Your task to perform on an android device: What's the weather today? Image 0: 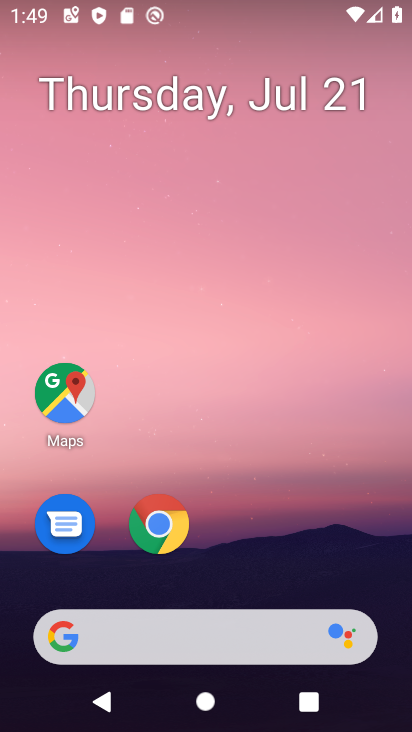
Step 0: drag from (270, 543) to (288, 64)
Your task to perform on an android device: What's the weather today? Image 1: 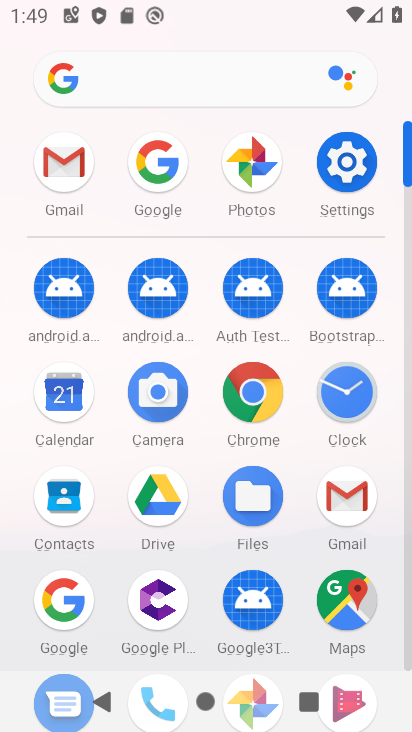
Step 1: click (154, 165)
Your task to perform on an android device: What's the weather today? Image 2: 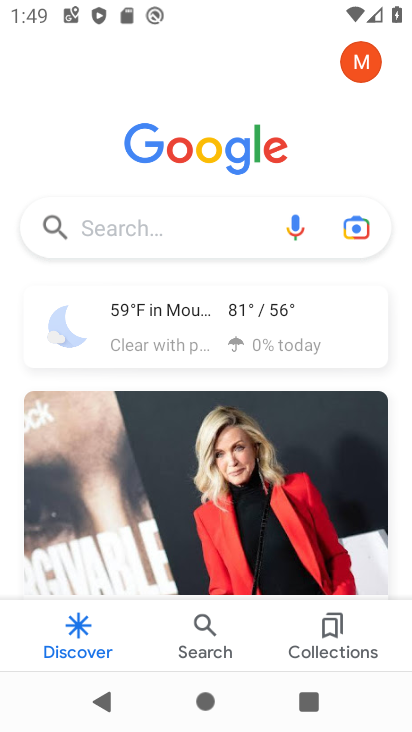
Step 2: click (159, 298)
Your task to perform on an android device: What's the weather today? Image 3: 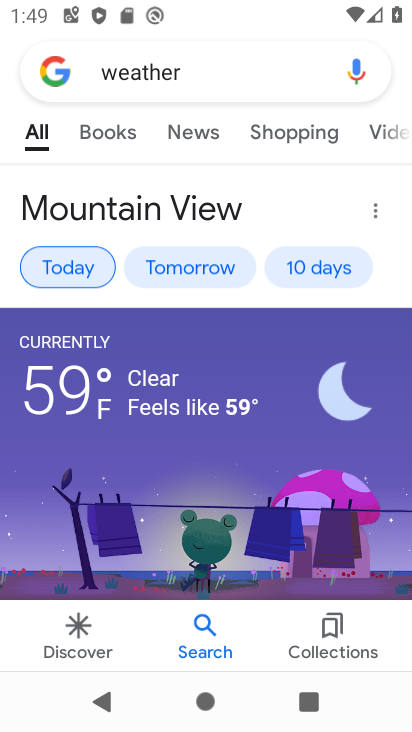
Step 3: click (84, 263)
Your task to perform on an android device: What's the weather today? Image 4: 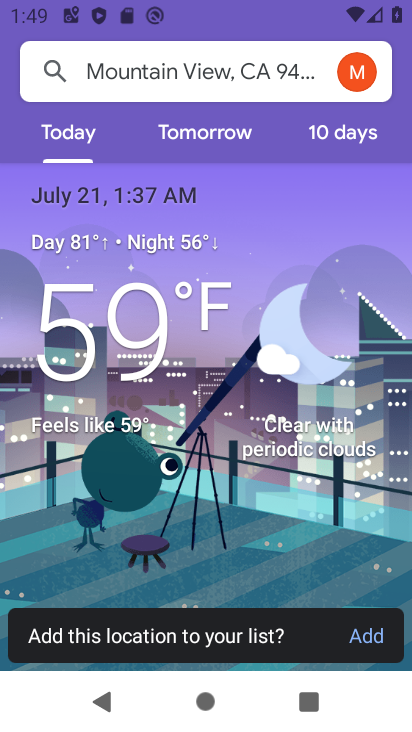
Step 4: task complete